Your task to perform on an android device: turn off notifications settings in the gmail app Image 0: 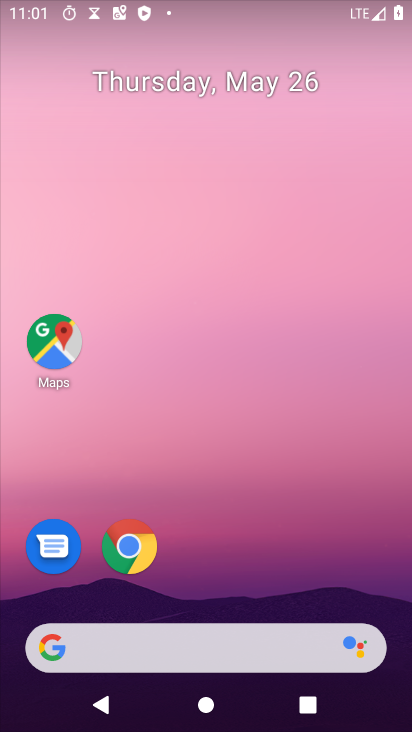
Step 0: drag from (373, 604) to (403, 134)
Your task to perform on an android device: turn off notifications settings in the gmail app Image 1: 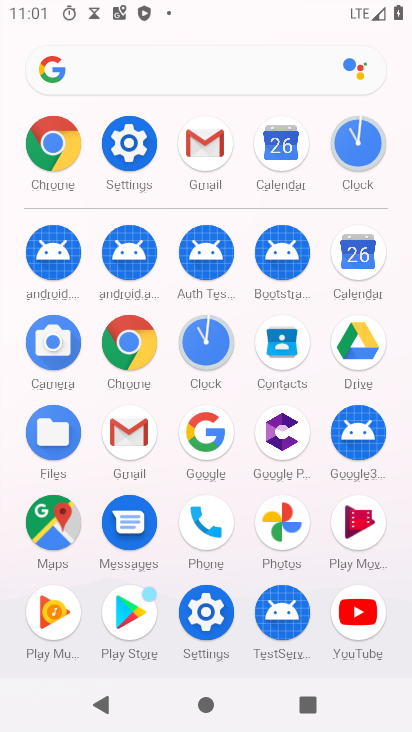
Step 1: click (116, 426)
Your task to perform on an android device: turn off notifications settings in the gmail app Image 2: 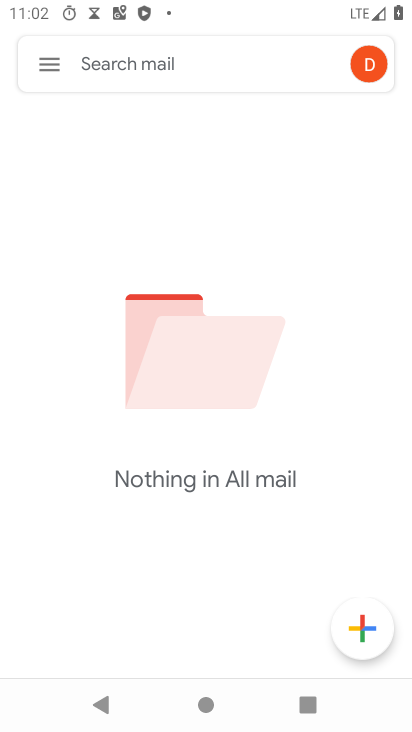
Step 2: click (41, 61)
Your task to perform on an android device: turn off notifications settings in the gmail app Image 3: 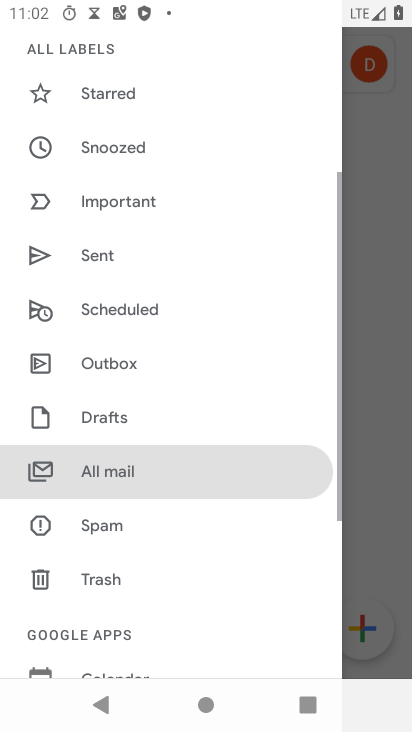
Step 3: drag from (126, 599) to (158, 185)
Your task to perform on an android device: turn off notifications settings in the gmail app Image 4: 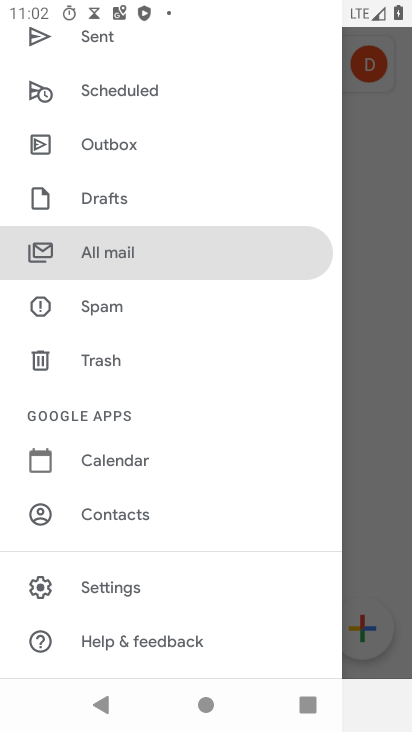
Step 4: click (161, 592)
Your task to perform on an android device: turn off notifications settings in the gmail app Image 5: 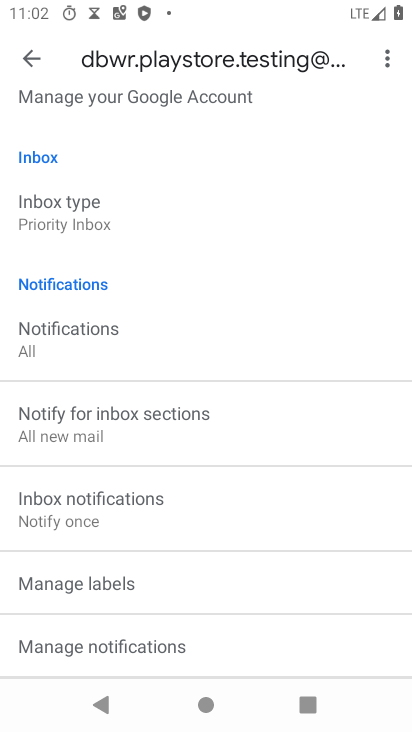
Step 5: drag from (264, 627) to (274, 476)
Your task to perform on an android device: turn off notifications settings in the gmail app Image 6: 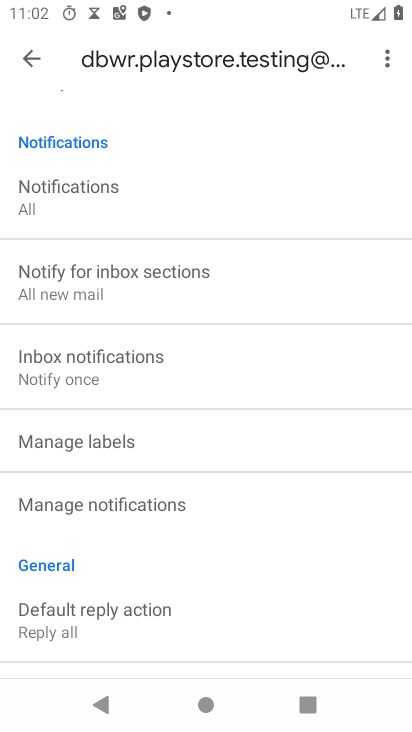
Step 6: click (126, 186)
Your task to perform on an android device: turn off notifications settings in the gmail app Image 7: 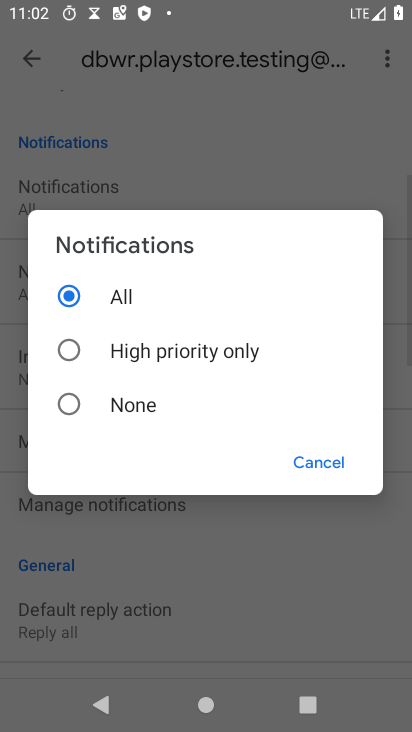
Step 7: click (65, 399)
Your task to perform on an android device: turn off notifications settings in the gmail app Image 8: 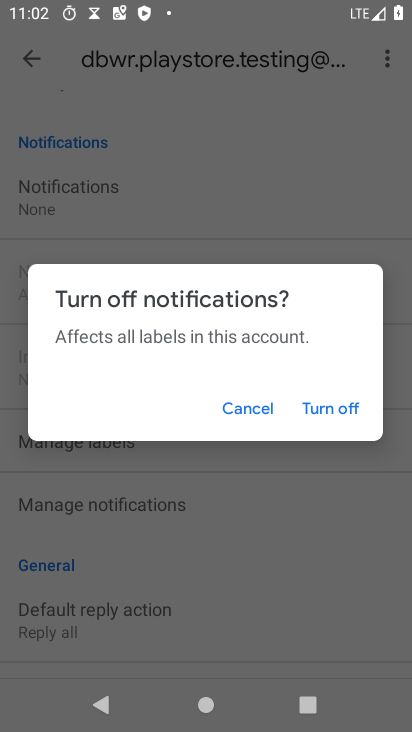
Step 8: click (320, 408)
Your task to perform on an android device: turn off notifications settings in the gmail app Image 9: 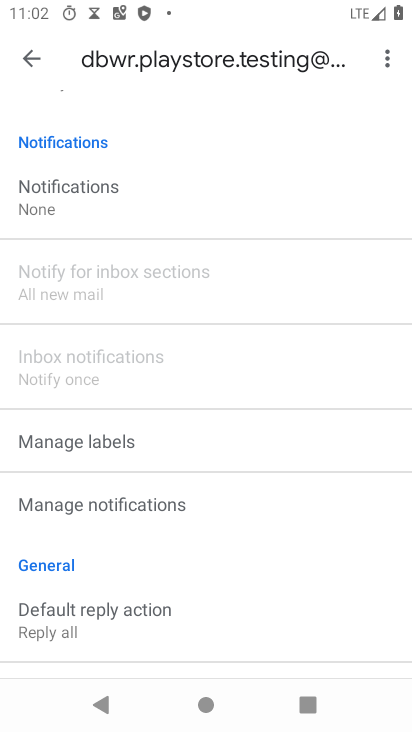
Step 9: task complete